Your task to perform on an android device: Open the stopwatch Image 0: 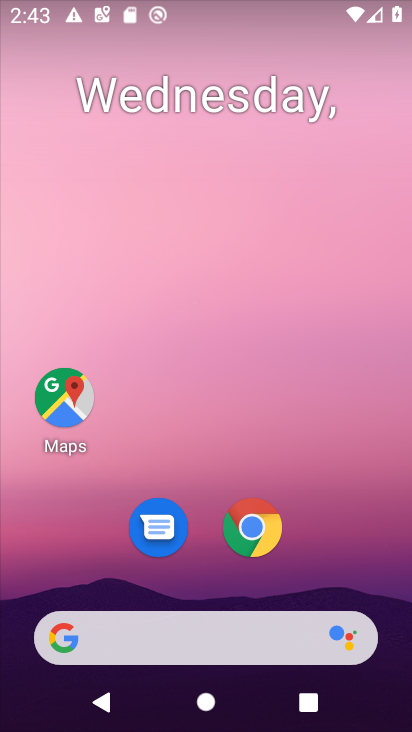
Step 0: drag from (367, 579) to (317, 141)
Your task to perform on an android device: Open the stopwatch Image 1: 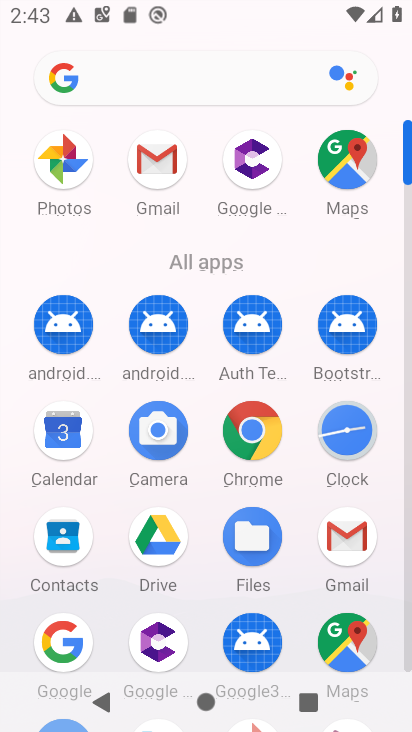
Step 1: click (341, 430)
Your task to perform on an android device: Open the stopwatch Image 2: 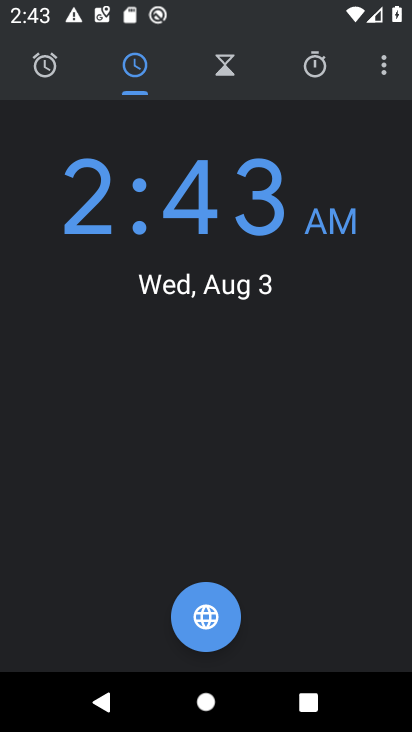
Step 2: click (334, 67)
Your task to perform on an android device: Open the stopwatch Image 3: 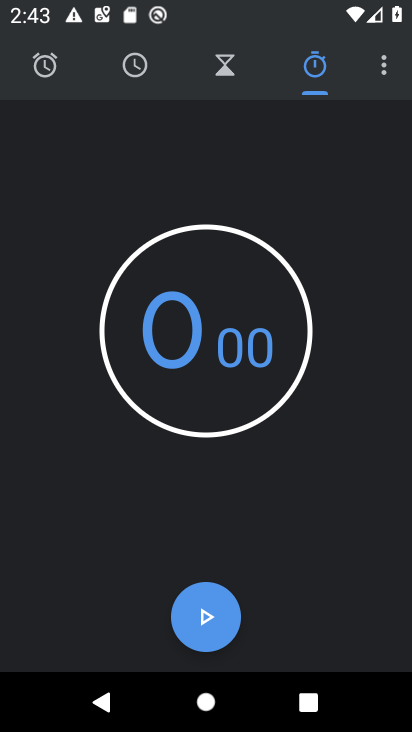
Step 3: task complete